Your task to perform on an android device: turn on improve location accuracy Image 0: 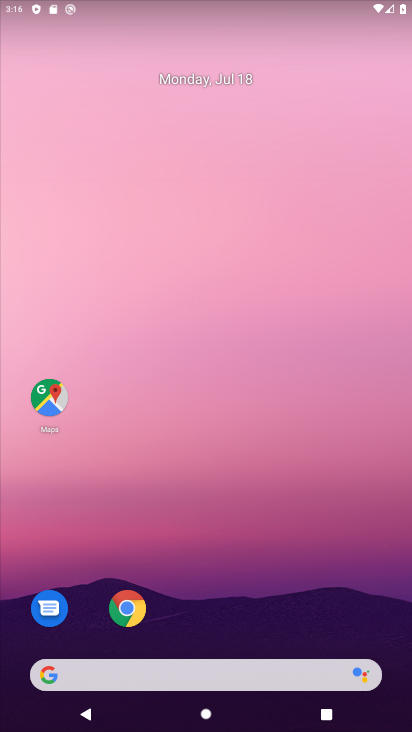
Step 0: drag from (321, 622) to (381, 76)
Your task to perform on an android device: turn on improve location accuracy Image 1: 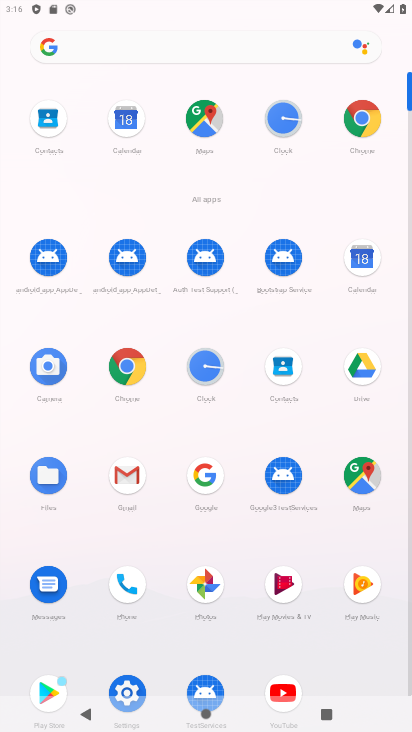
Step 1: click (130, 683)
Your task to perform on an android device: turn on improve location accuracy Image 2: 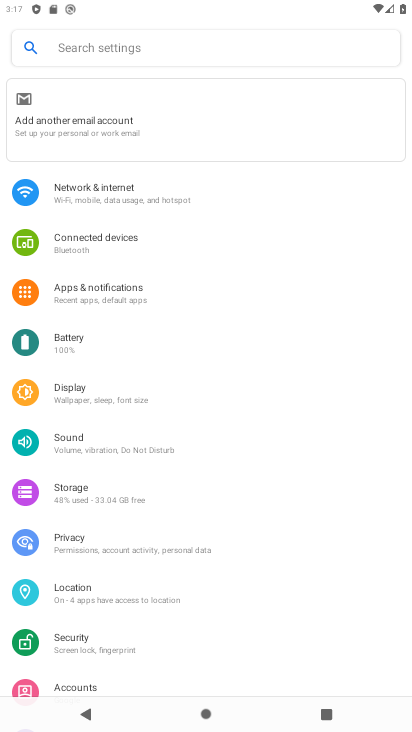
Step 2: click (92, 594)
Your task to perform on an android device: turn on improve location accuracy Image 3: 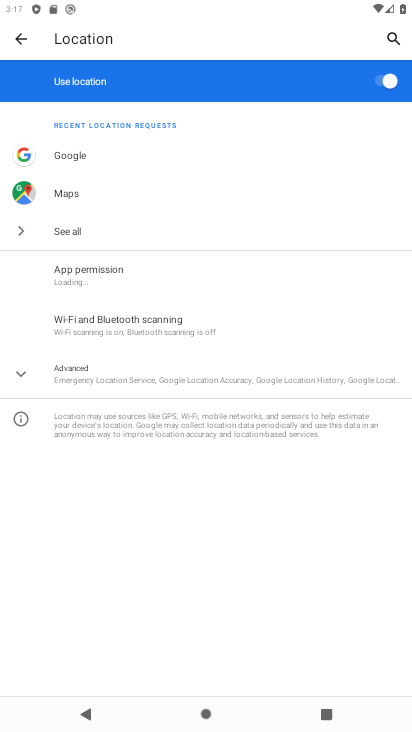
Step 3: click (144, 372)
Your task to perform on an android device: turn on improve location accuracy Image 4: 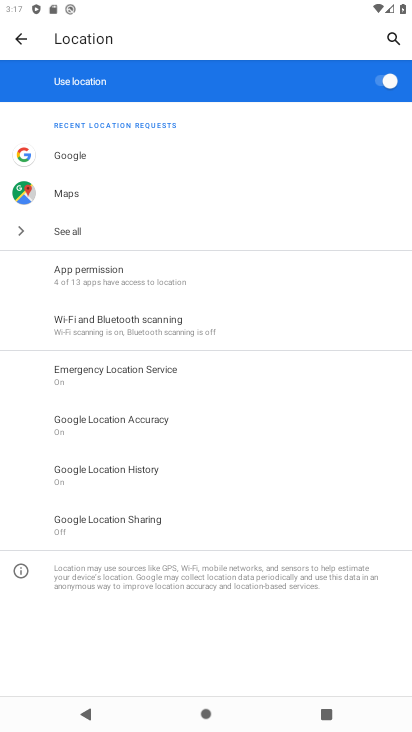
Step 4: click (161, 422)
Your task to perform on an android device: turn on improve location accuracy Image 5: 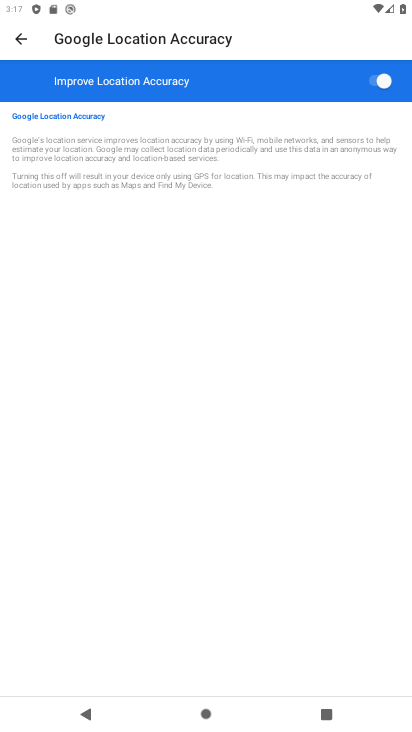
Step 5: task complete